Your task to perform on an android device: Go to privacy settings Image 0: 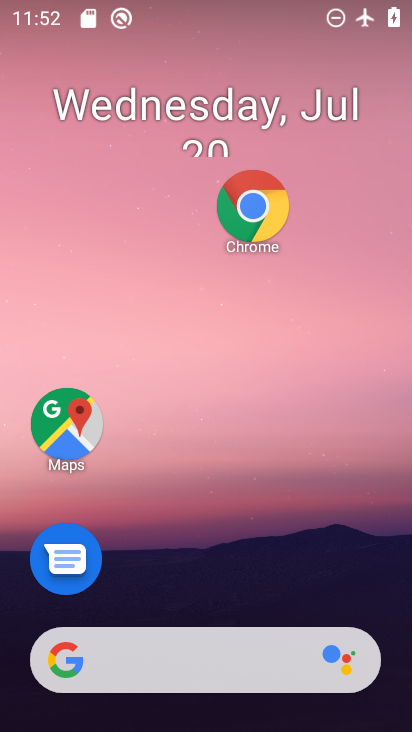
Step 0: drag from (233, 535) to (242, 165)
Your task to perform on an android device: Go to privacy settings Image 1: 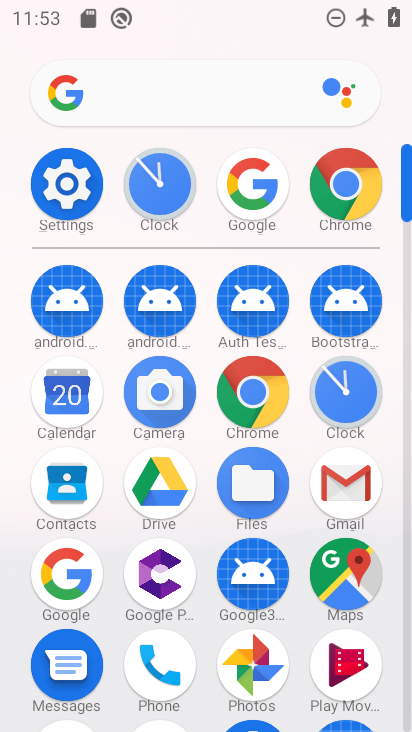
Step 1: click (86, 196)
Your task to perform on an android device: Go to privacy settings Image 2: 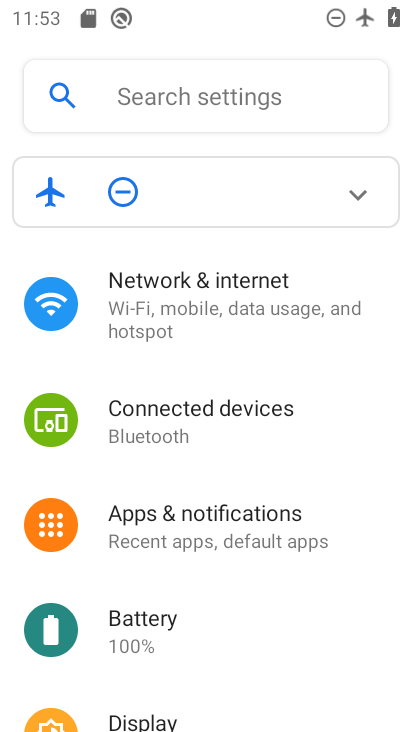
Step 2: drag from (180, 475) to (201, 8)
Your task to perform on an android device: Go to privacy settings Image 3: 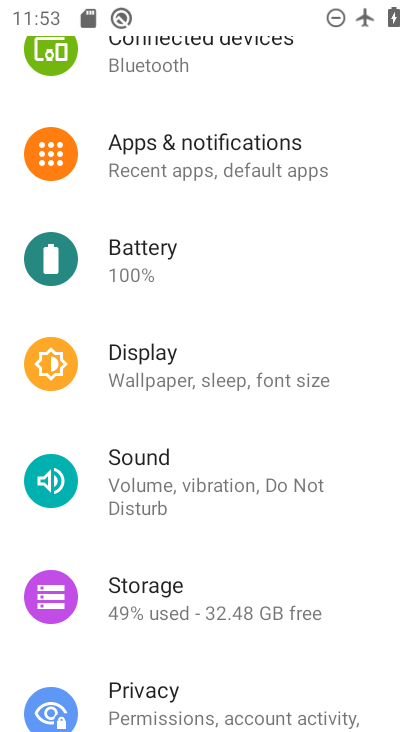
Step 3: click (154, 679)
Your task to perform on an android device: Go to privacy settings Image 4: 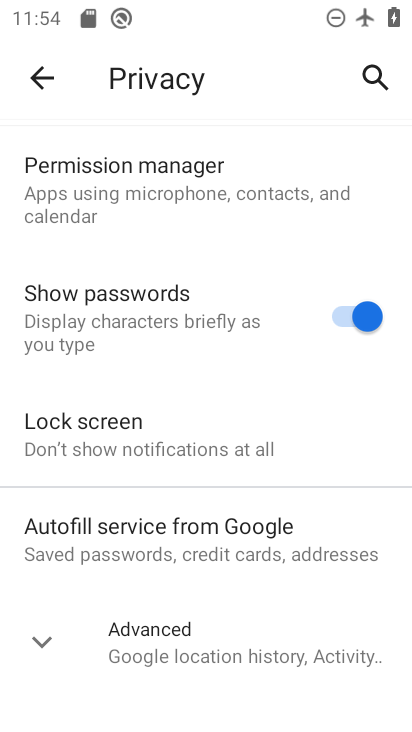
Step 4: task complete